Your task to perform on an android device: Go to sound settings Image 0: 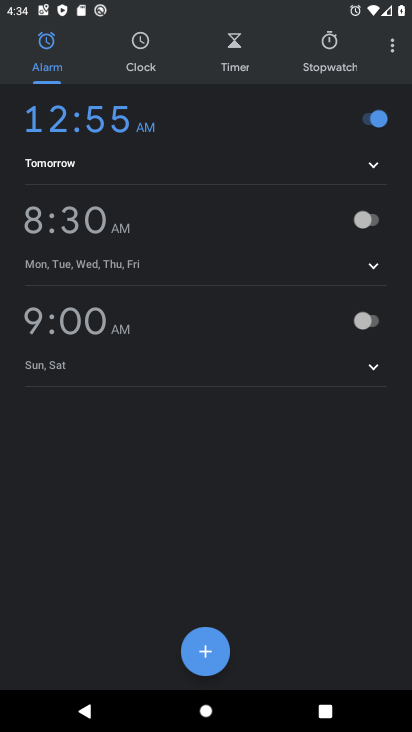
Step 0: press home button
Your task to perform on an android device: Go to sound settings Image 1: 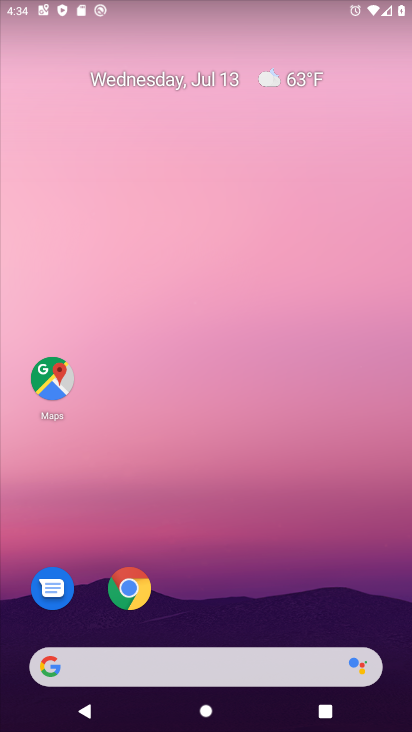
Step 1: drag from (176, 655) to (210, 107)
Your task to perform on an android device: Go to sound settings Image 2: 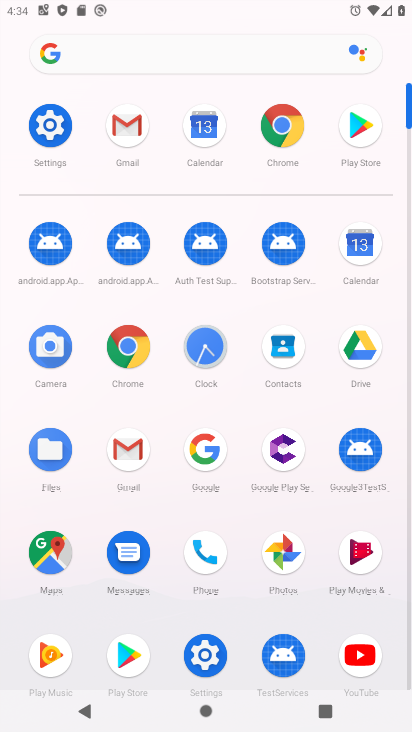
Step 2: click (51, 125)
Your task to perform on an android device: Go to sound settings Image 3: 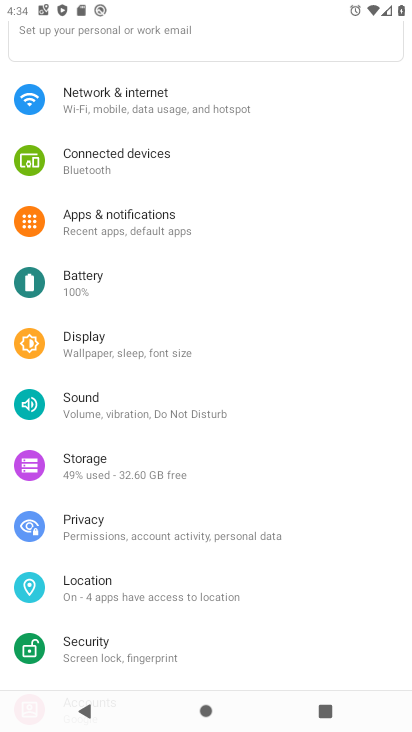
Step 3: click (111, 401)
Your task to perform on an android device: Go to sound settings Image 4: 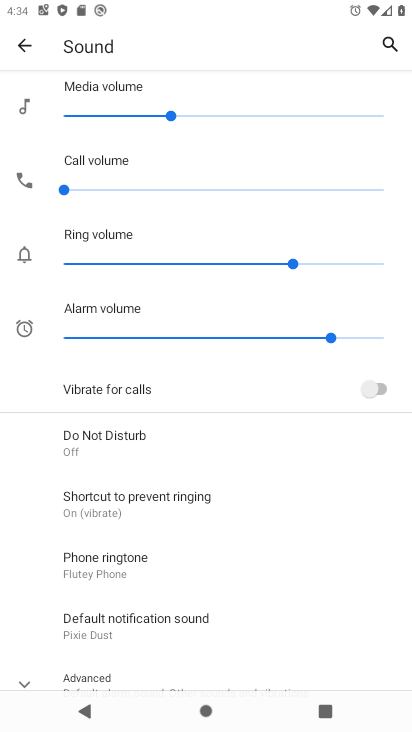
Step 4: task complete